Your task to perform on an android device: Open Yahoo.com Image 0: 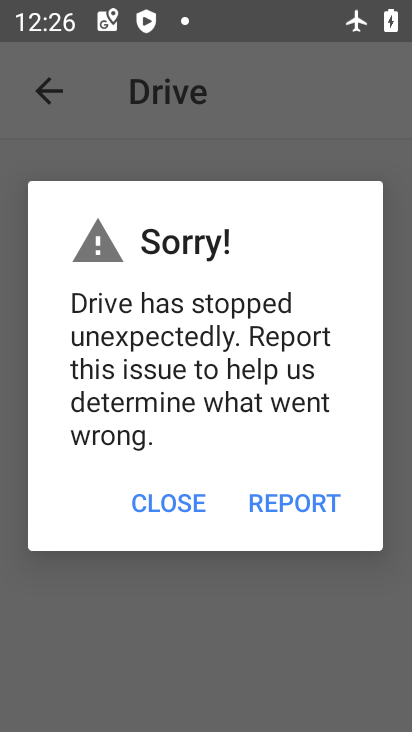
Step 0: press home button
Your task to perform on an android device: Open Yahoo.com Image 1: 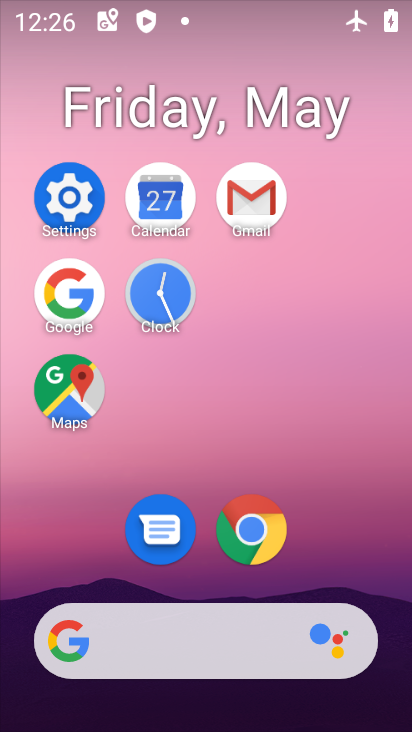
Step 1: click (264, 552)
Your task to perform on an android device: Open Yahoo.com Image 2: 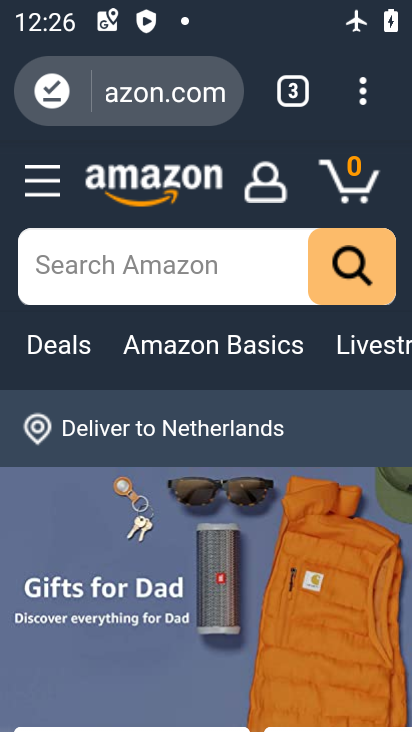
Step 2: click (259, 75)
Your task to perform on an android device: Open Yahoo.com Image 3: 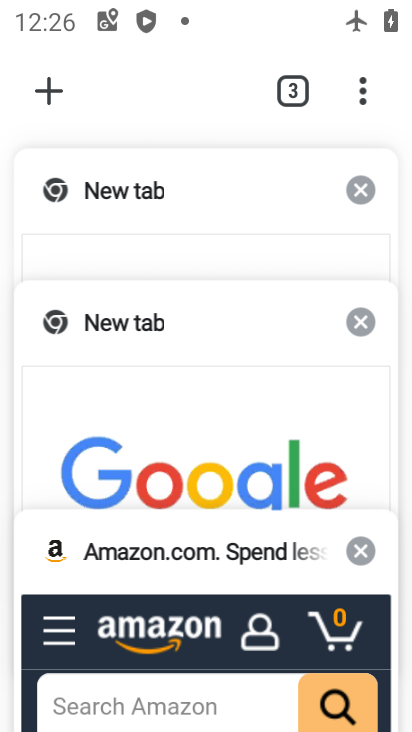
Step 3: click (56, 96)
Your task to perform on an android device: Open Yahoo.com Image 4: 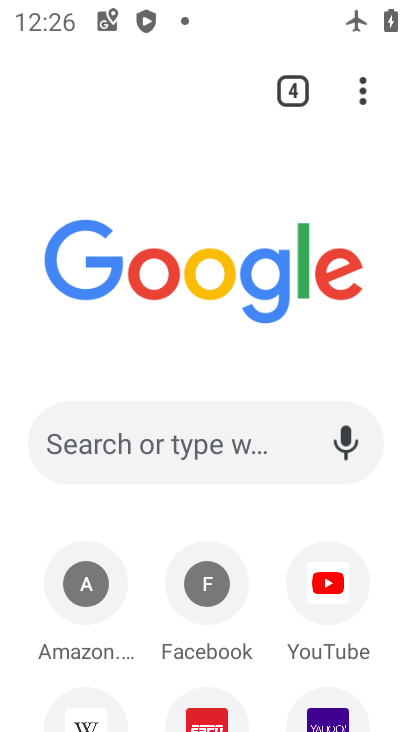
Step 4: click (319, 709)
Your task to perform on an android device: Open Yahoo.com Image 5: 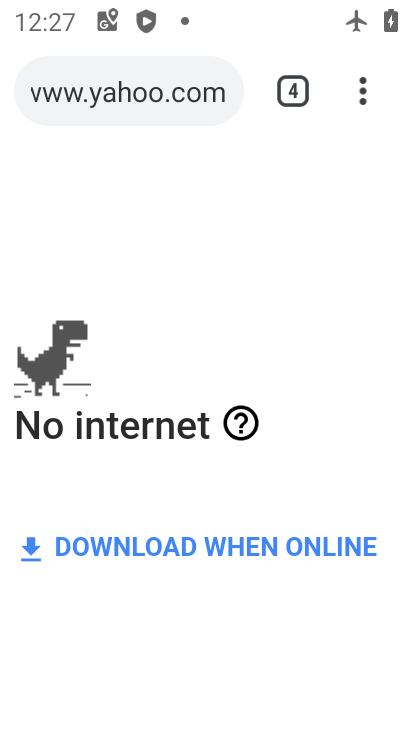
Step 5: task complete